Your task to perform on an android device: change the clock display to analog Image 0: 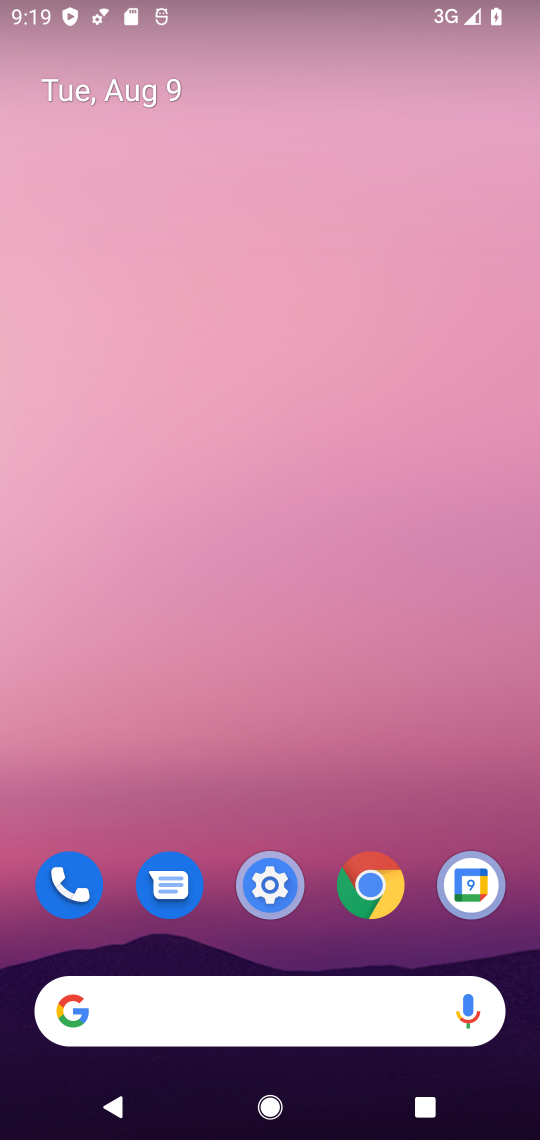
Step 0: press home button
Your task to perform on an android device: change the clock display to analog Image 1: 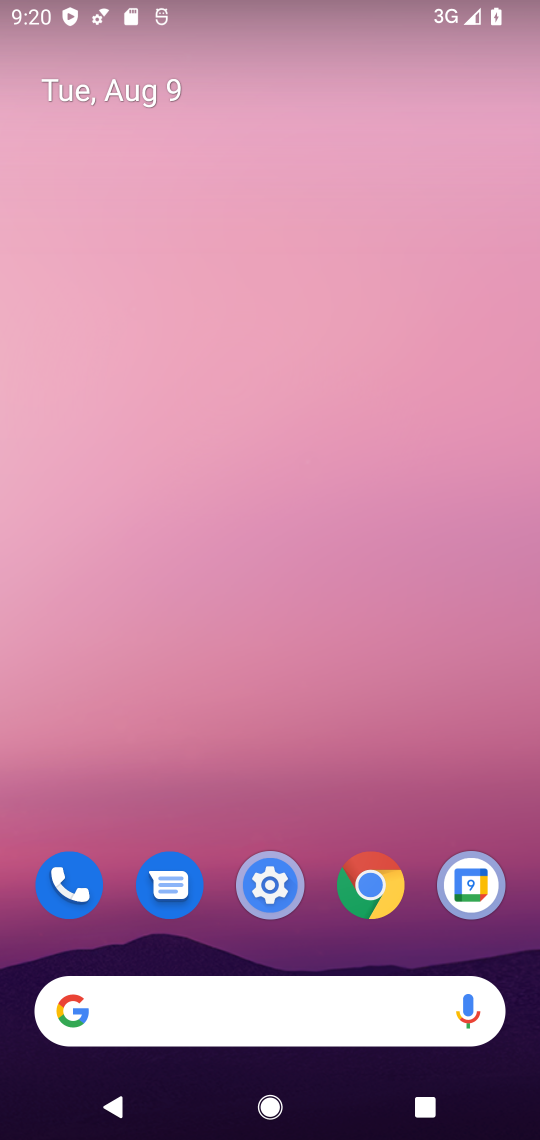
Step 1: drag from (313, 818) to (325, 62)
Your task to perform on an android device: change the clock display to analog Image 2: 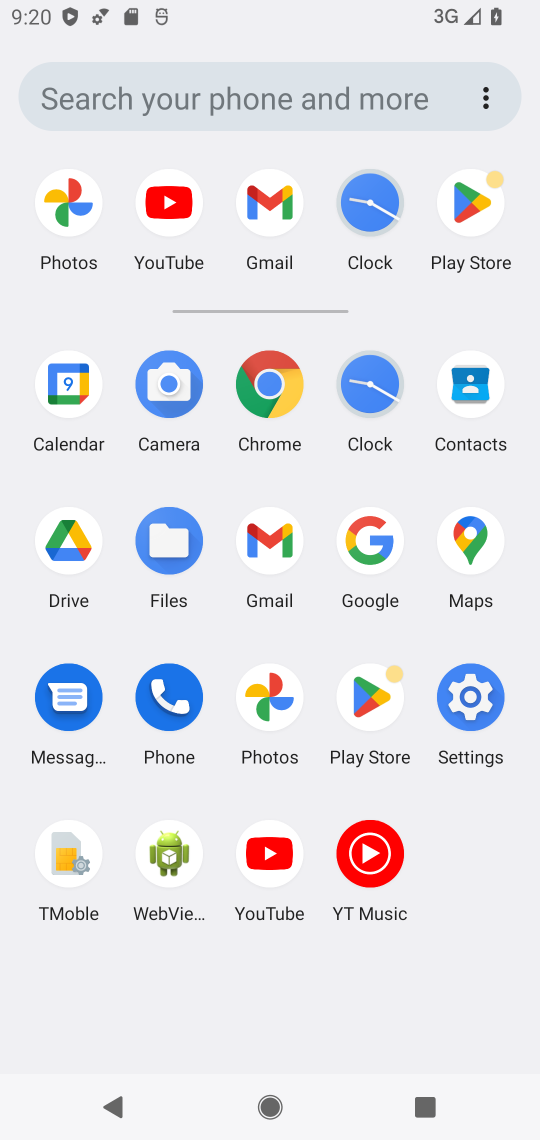
Step 2: click (367, 380)
Your task to perform on an android device: change the clock display to analog Image 3: 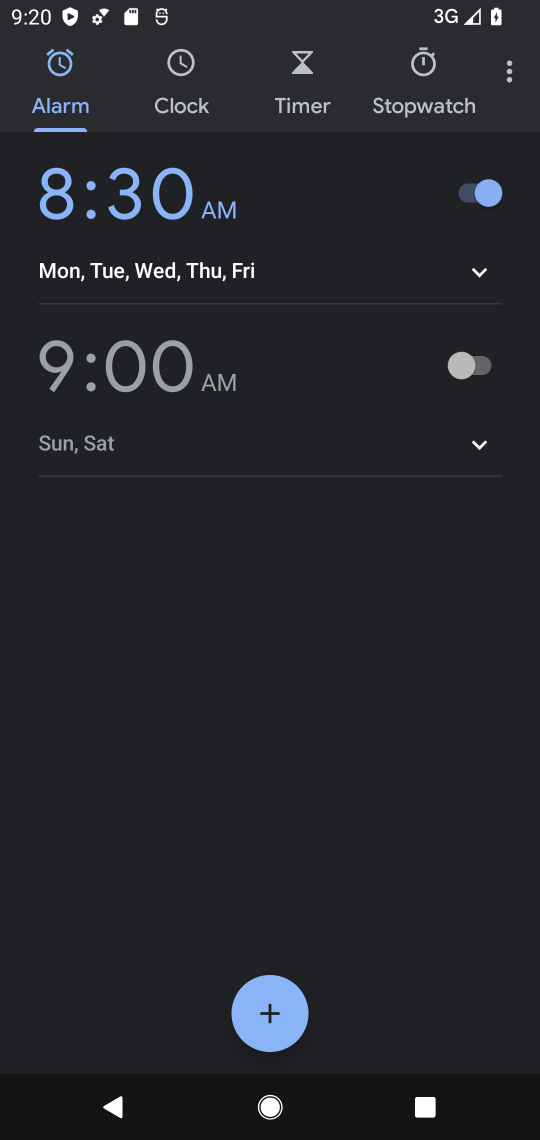
Step 3: click (504, 67)
Your task to perform on an android device: change the clock display to analog Image 4: 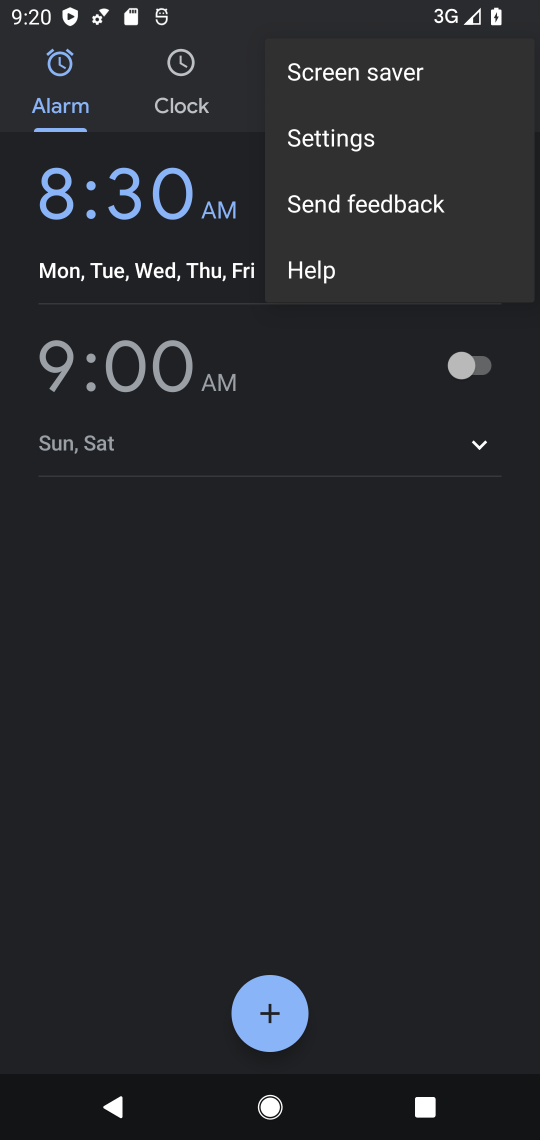
Step 4: click (348, 148)
Your task to perform on an android device: change the clock display to analog Image 5: 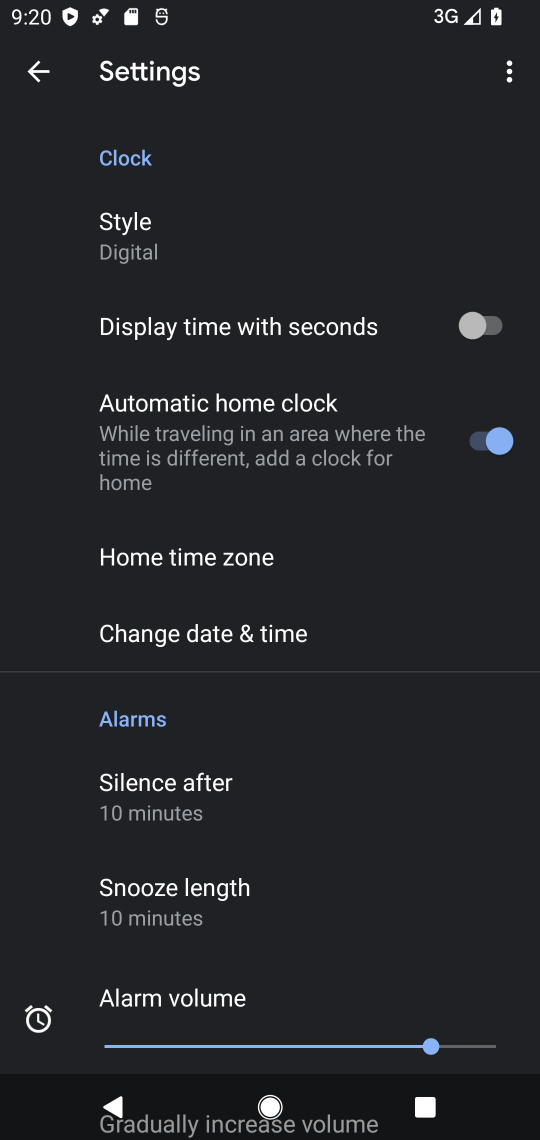
Step 5: click (186, 248)
Your task to perform on an android device: change the clock display to analog Image 6: 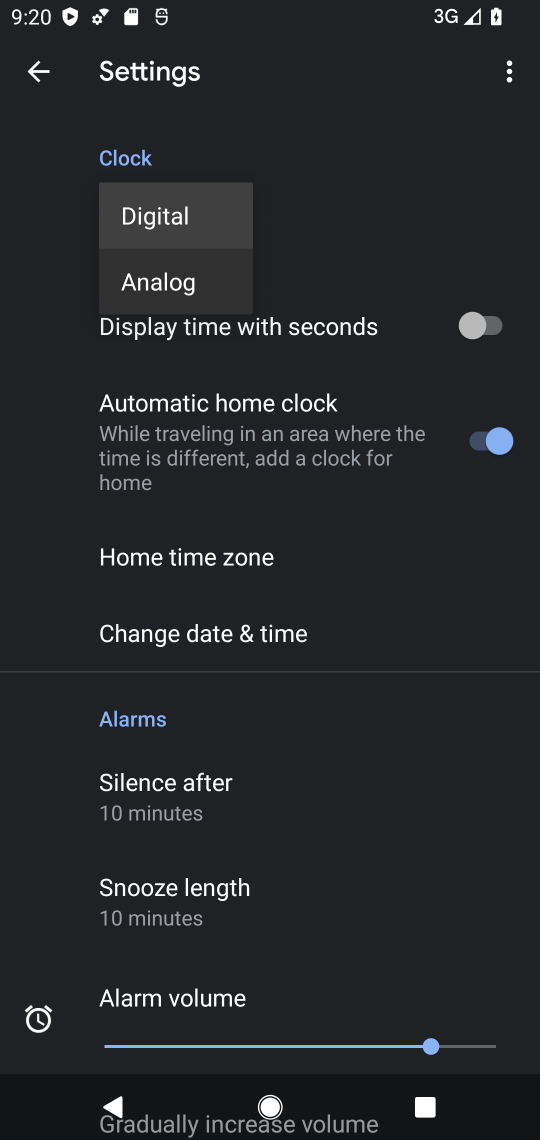
Step 6: click (199, 290)
Your task to perform on an android device: change the clock display to analog Image 7: 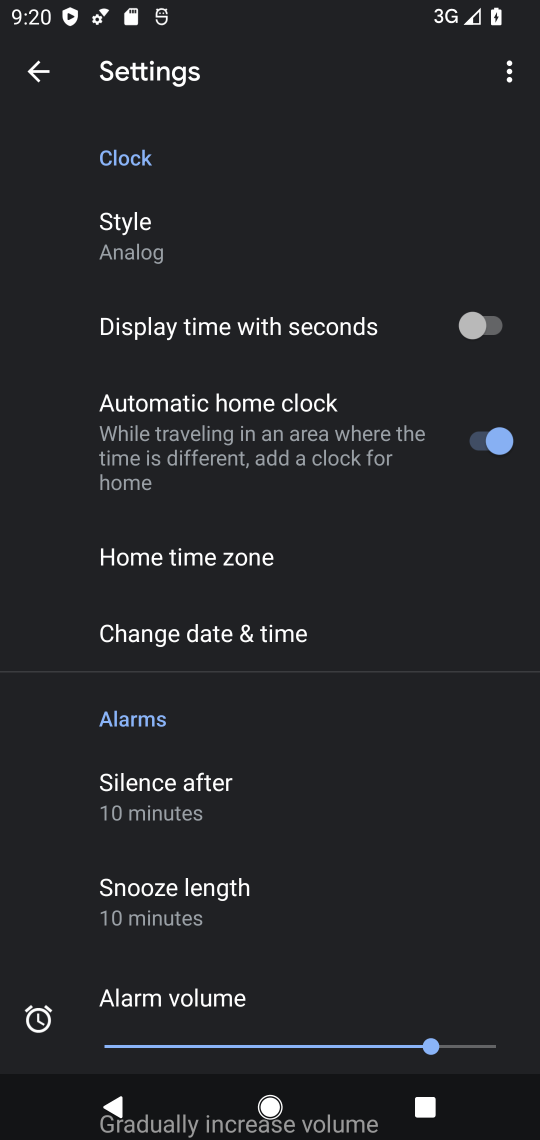
Step 7: task complete